Your task to perform on an android device: Go to CNN.com Image 0: 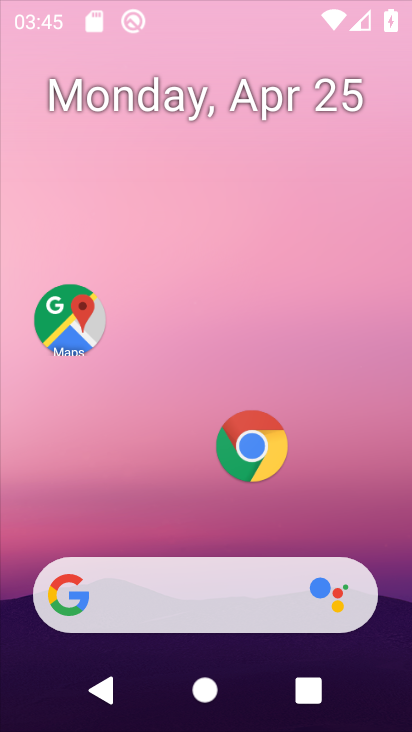
Step 0: click (65, 336)
Your task to perform on an android device: Go to CNN.com Image 1: 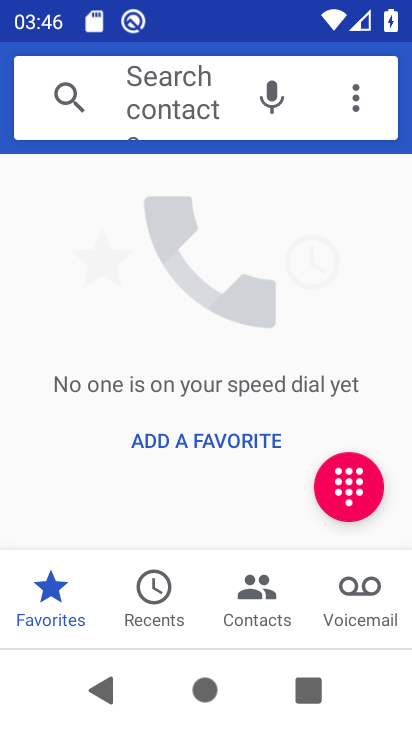
Step 1: press home button
Your task to perform on an android device: Go to CNN.com Image 2: 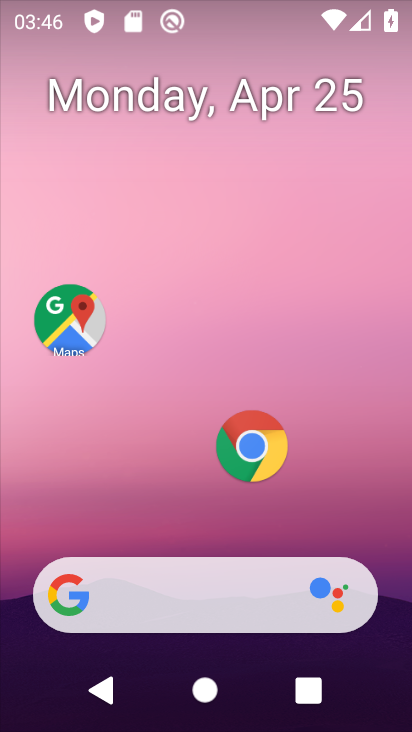
Step 2: click (190, 576)
Your task to perform on an android device: Go to CNN.com Image 3: 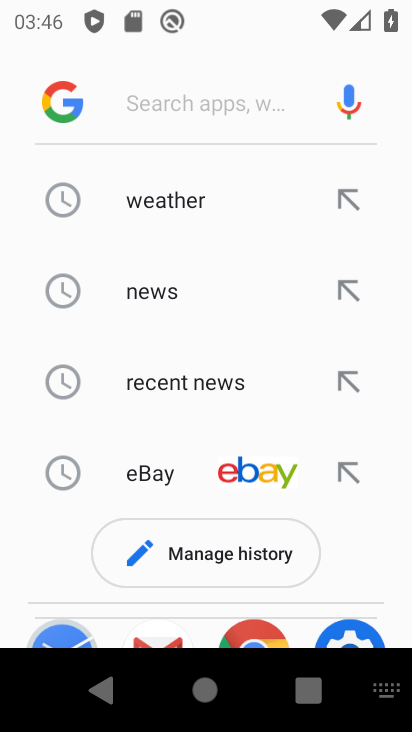
Step 3: type "cnn.com"
Your task to perform on an android device: Go to CNN.com Image 4: 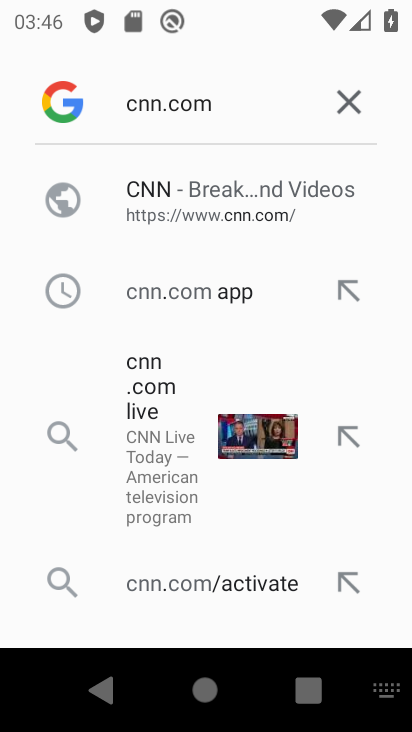
Step 4: click (192, 211)
Your task to perform on an android device: Go to CNN.com Image 5: 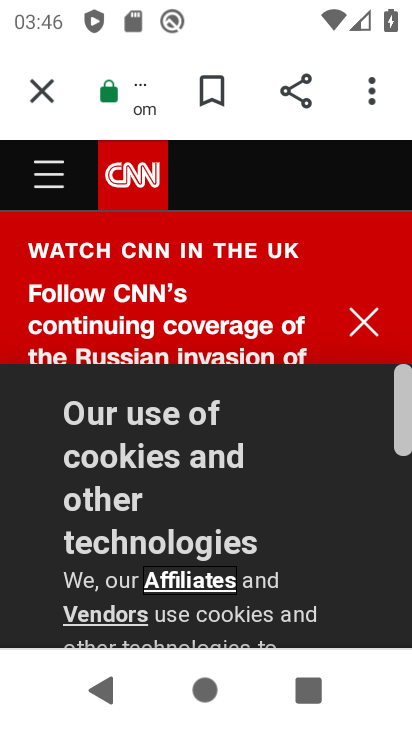
Step 5: task complete